Your task to perform on an android device: When is my next meeting? Image 0: 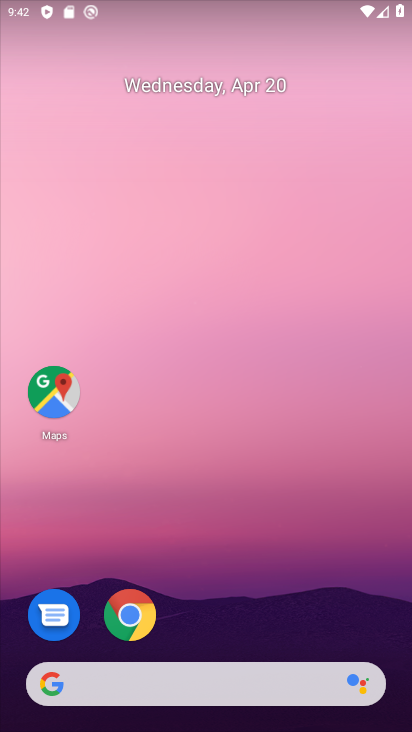
Step 0: drag from (244, 589) to (115, 98)
Your task to perform on an android device: When is my next meeting? Image 1: 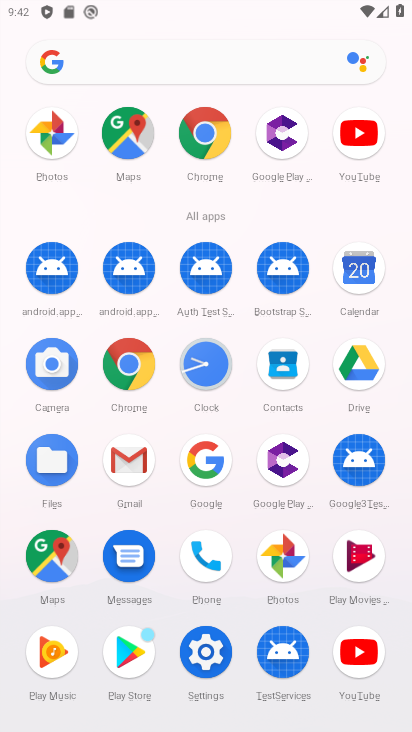
Step 1: click (367, 272)
Your task to perform on an android device: When is my next meeting? Image 2: 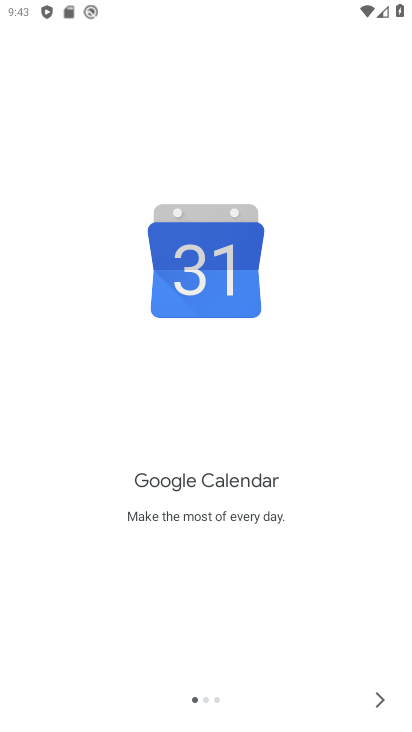
Step 2: click (376, 695)
Your task to perform on an android device: When is my next meeting? Image 3: 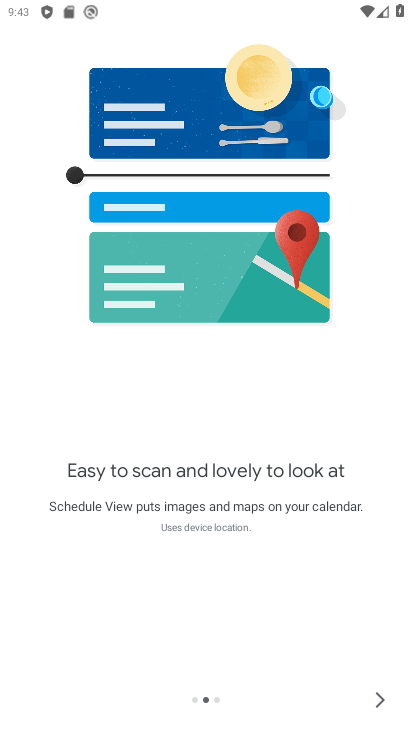
Step 3: click (393, 706)
Your task to perform on an android device: When is my next meeting? Image 4: 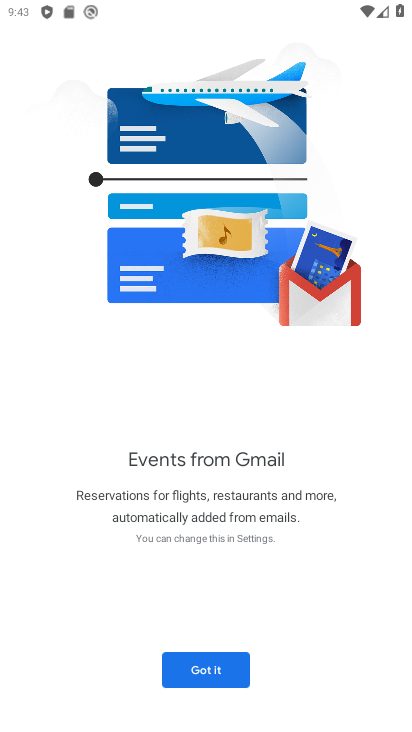
Step 4: click (215, 675)
Your task to perform on an android device: When is my next meeting? Image 5: 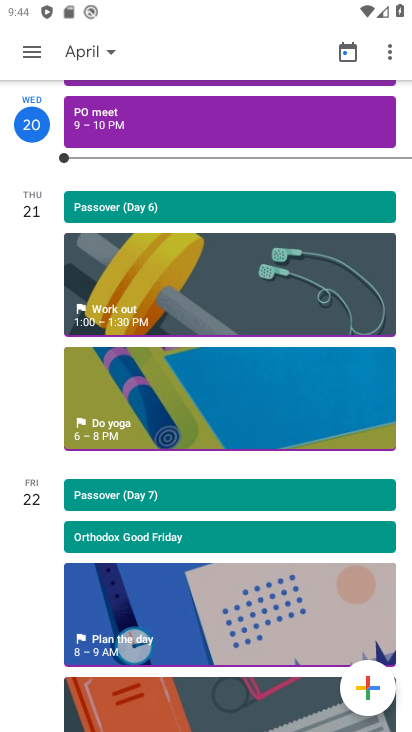
Step 5: click (34, 198)
Your task to perform on an android device: When is my next meeting? Image 6: 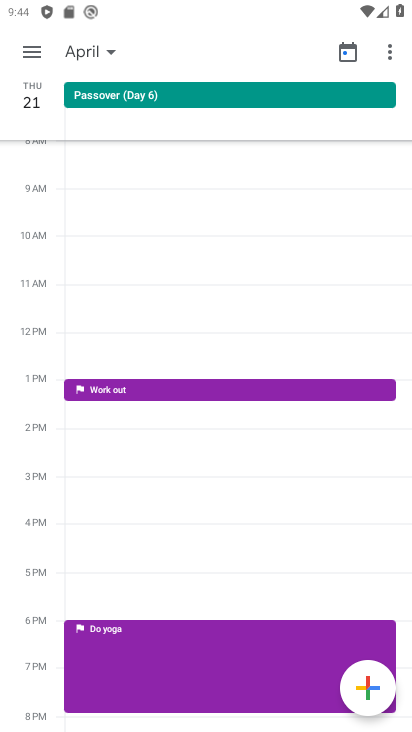
Step 6: task complete